Your task to perform on an android device: check android version Image 0: 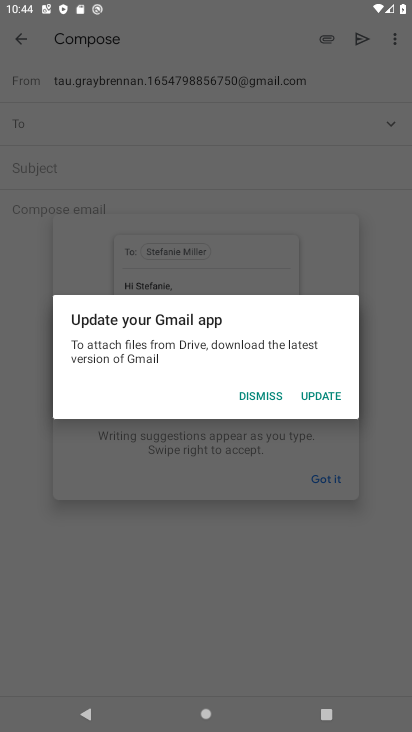
Step 0: press home button
Your task to perform on an android device: check android version Image 1: 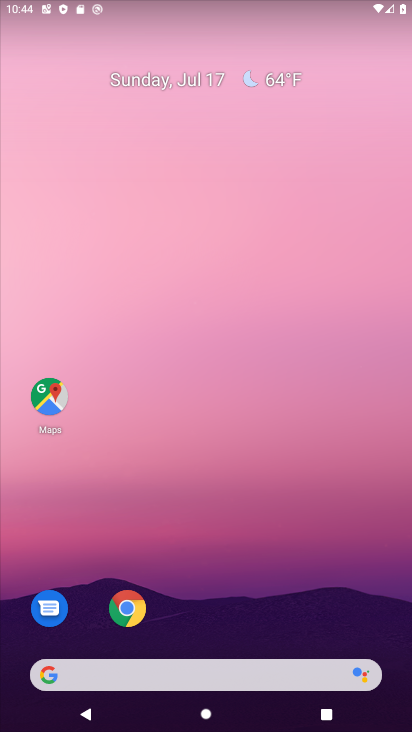
Step 1: drag from (372, 604) to (194, 0)
Your task to perform on an android device: check android version Image 2: 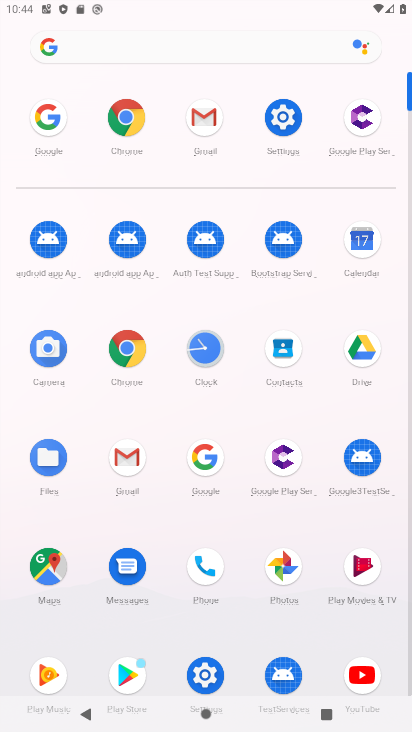
Step 2: click (281, 122)
Your task to perform on an android device: check android version Image 3: 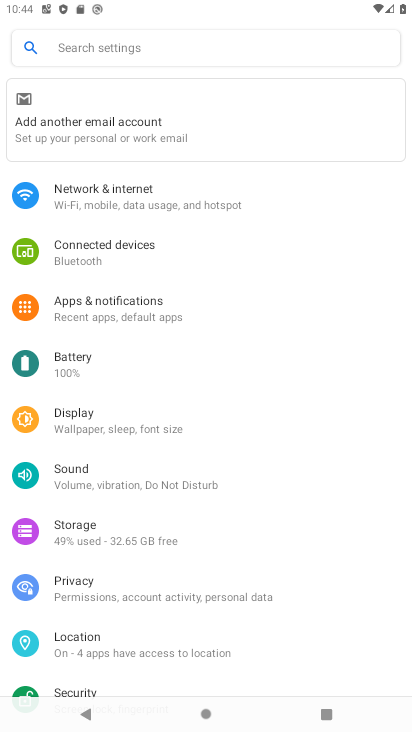
Step 3: drag from (149, 648) to (200, 91)
Your task to perform on an android device: check android version Image 4: 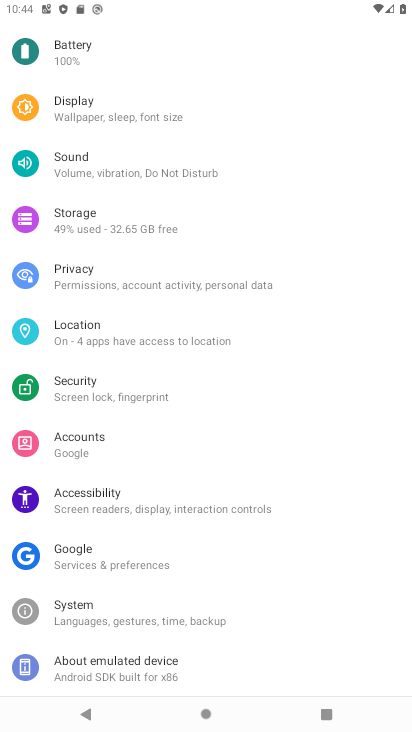
Step 4: click (173, 679)
Your task to perform on an android device: check android version Image 5: 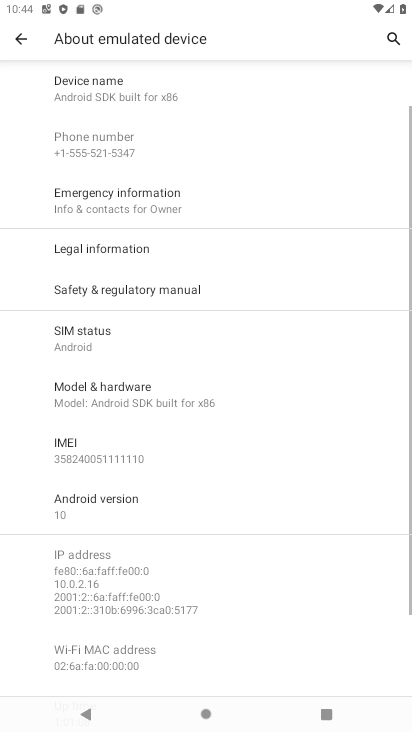
Step 5: click (132, 524)
Your task to perform on an android device: check android version Image 6: 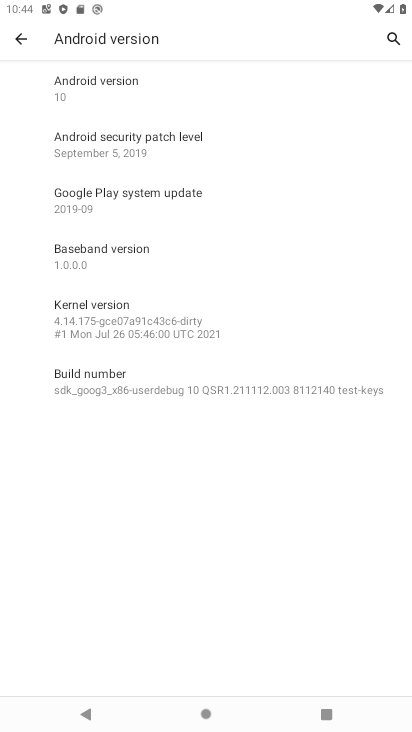
Step 6: task complete